Your task to perform on an android device: turn on location history Image 0: 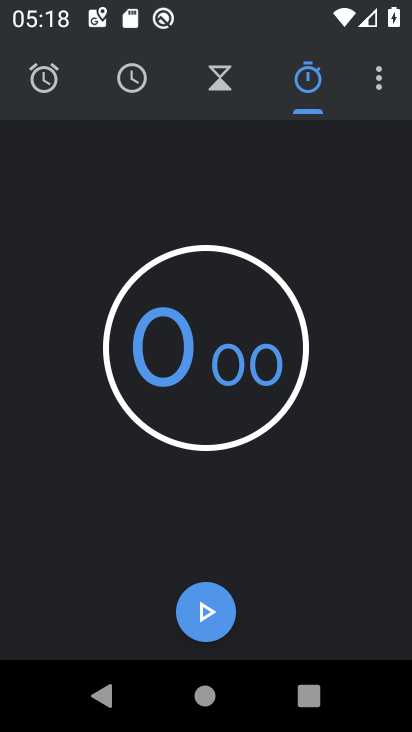
Step 0: press home button
Your task to perform on an android device: turn on location history Image 1: 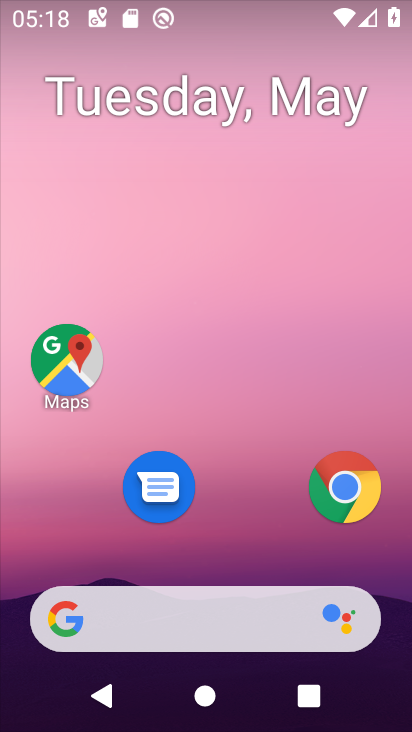
Step 1: drag from (246, 525) to (216, 155)
Your task to perform on an android device: turn on location history Image 2: 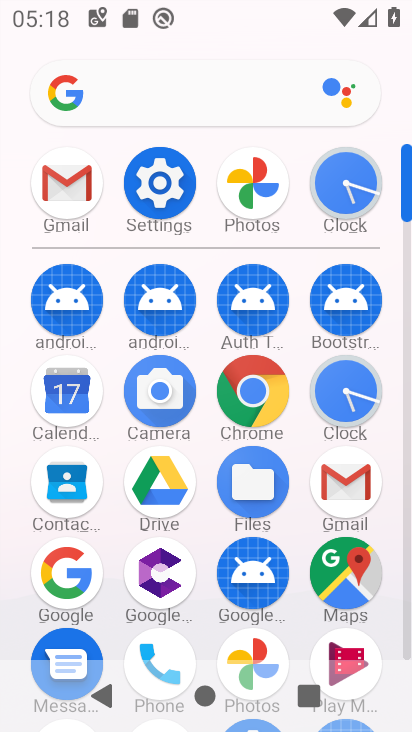
Step 2: click (180, 177)
Your task to perform on an android device: turn on location history Image 3: 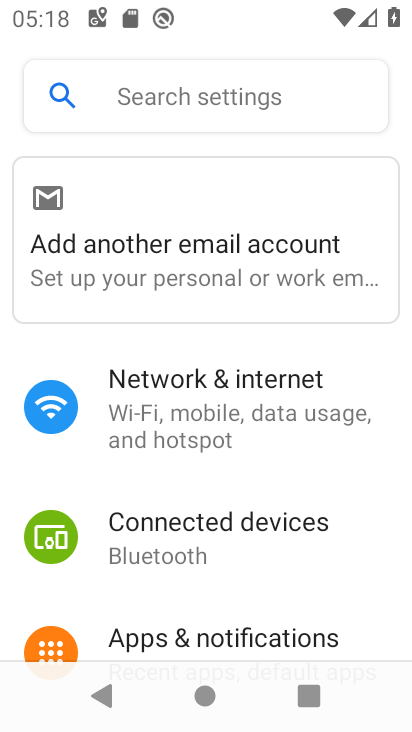
Step 3: drag from (262, 587) to (194, 229)
Your task to perform on an android device: turn on location history Image 4: 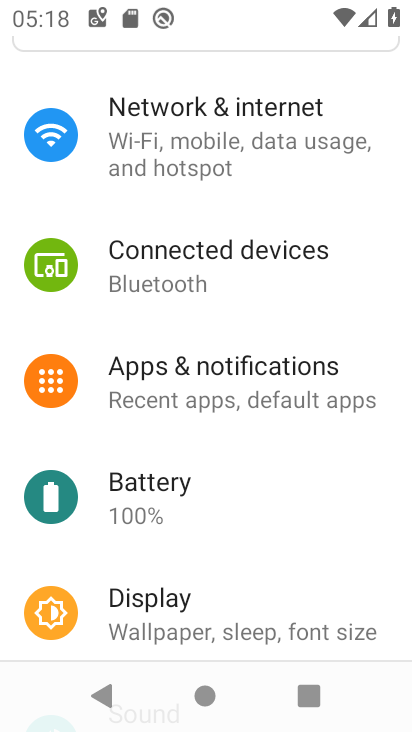
Step 4: drag from (233, 595) to (157, 57)
Your task to perform on an android device: turn on location history Image 5: 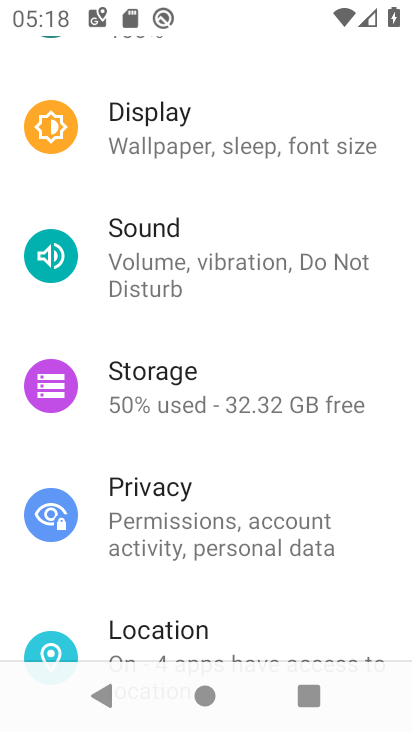
Step 5: drag from (207, 535) to (138, 245)
Your task to perform on an android device: turn on location history Image 6: 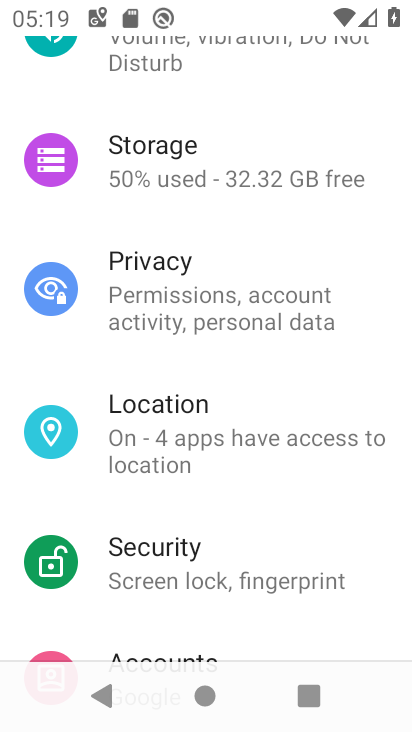
Step 6: click (163, 472)
Your task to perform on an android device: turn on location history Image 7: 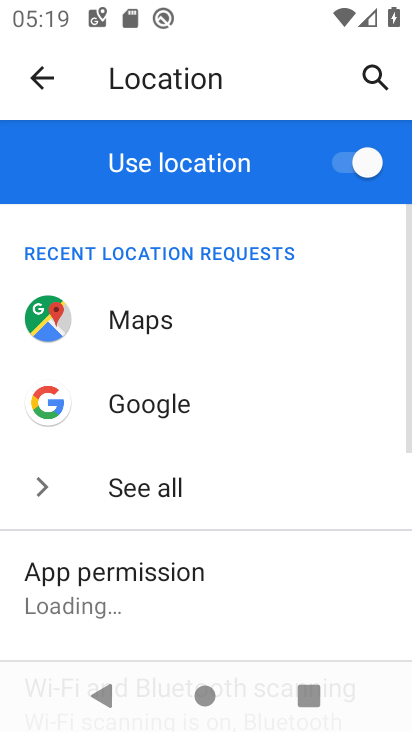
Step 7: drag from (195, 583) to (129, 232)
Your task to perform on an android device: turn on location history Image 8: 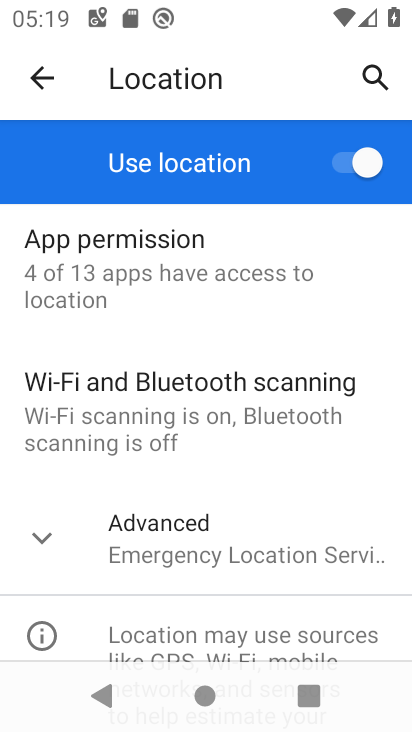
Step 8: drag from (189, 581) to (153, 395)
Your task to perform on an android device: turn on location history Image 9: 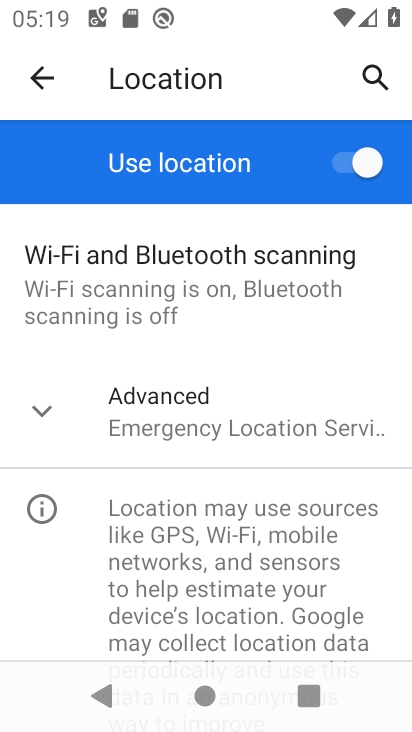
Step 9: click (150, 435)
Your task to perform on an android device: turn on location history Image 10: 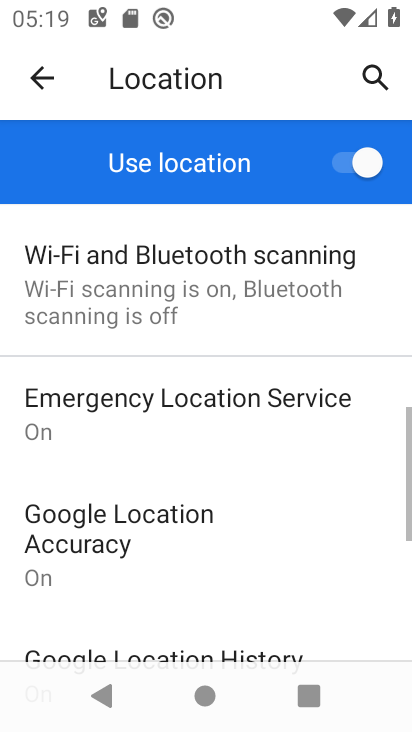
Step 10: task complete